Your task to perform on an android device: turn on sleep mode Image 0: 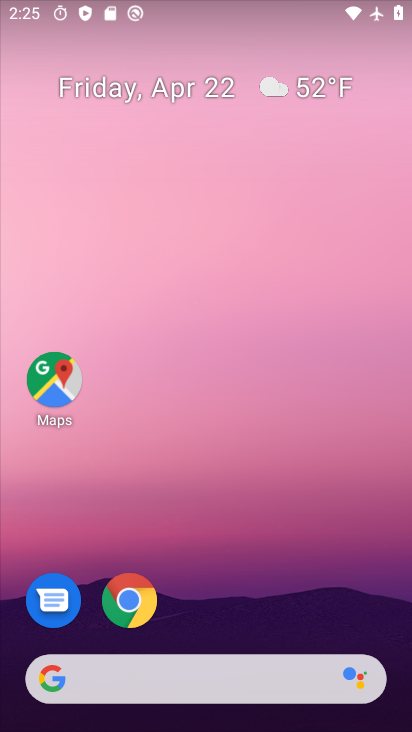
Step 0: drag from (219, 708) to (196, 112)
Your task to perform on an android device: turn on sleep mode Image 1: 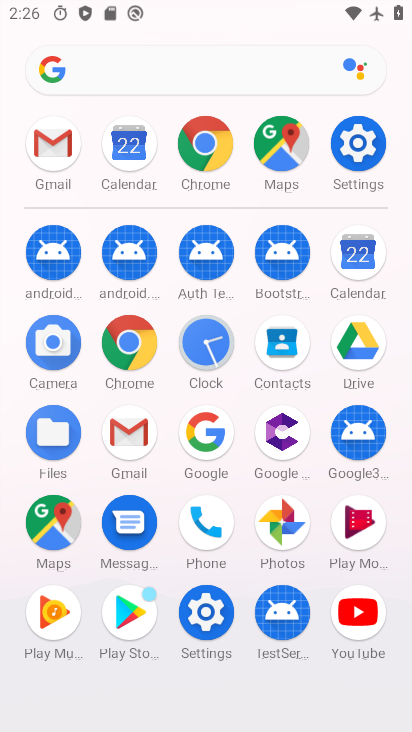
Step 1: click (355, 144)
Your task to perform on an android device: turn on sleep mode Image 2: 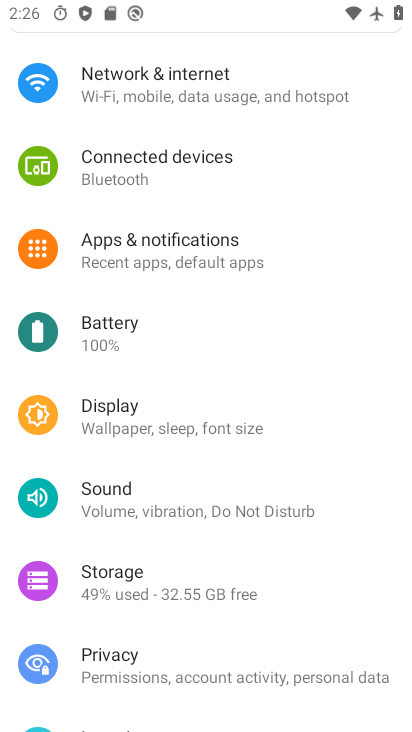
Step 2: drag from (244, 638) to (234, 79)
Your task to perform on an android device: turn on sleep mode Image 3: 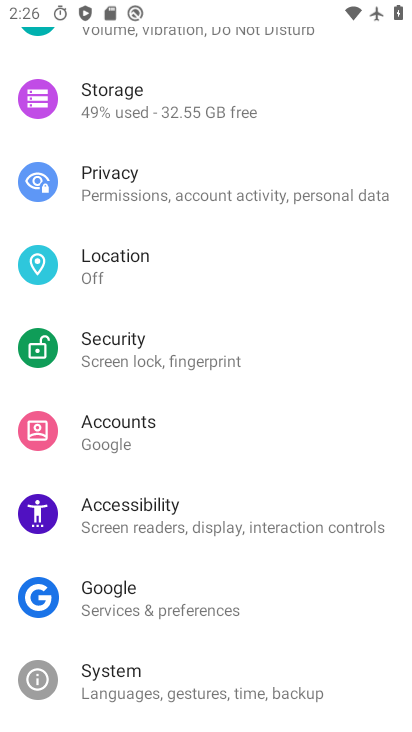
Step 3: drag from (273, 93) to (228, 524)
Your task to perform on an android device: turn on sleep mode Image 4: 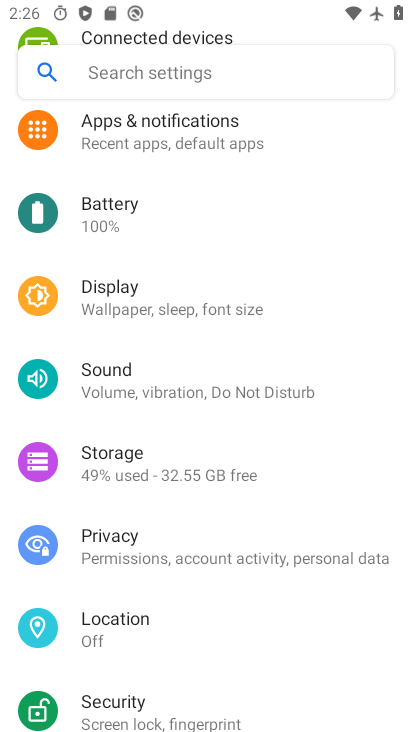
Step 4: drag from (235, 139) to (232, 555)
Your task to perform on an android device: turn on sleep mode Image 5: 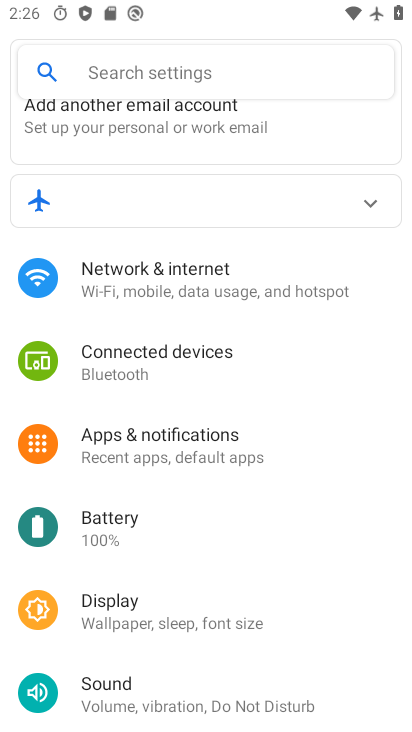
Step 5: click (189, 617)
Your task to perform on an android device: turn on sleep mode Image 6: 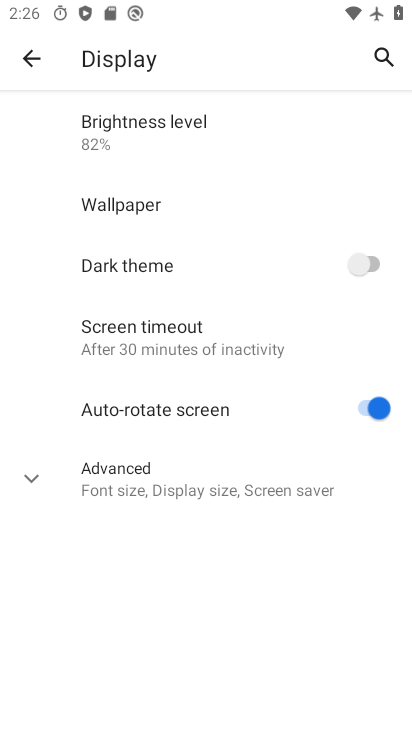
Step 6: task complete